Your task to perform on an android device: Open network settings Image 0: 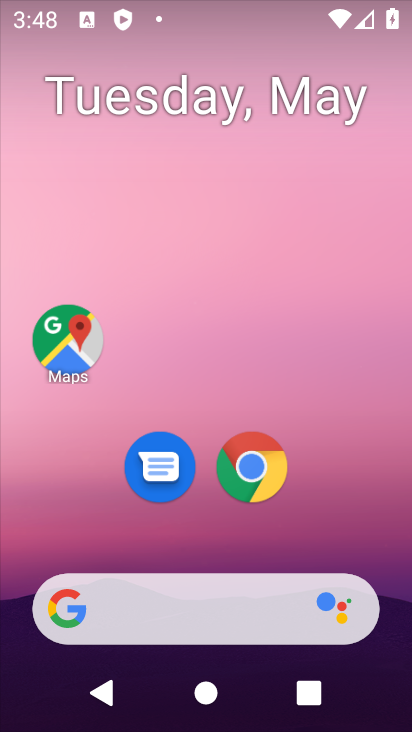
Step 0: drag from (374, 538) to (210, 18)
Your task to perform on an android device: Open network settings Image 1: 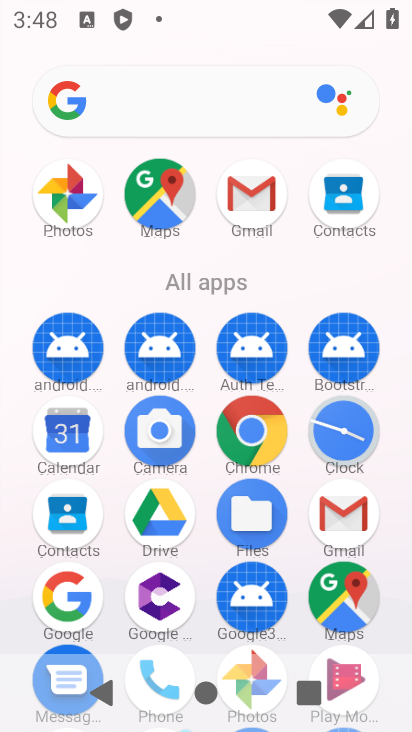
Step 1: task complete